Your task to perform on an android device: check android version Image 0: 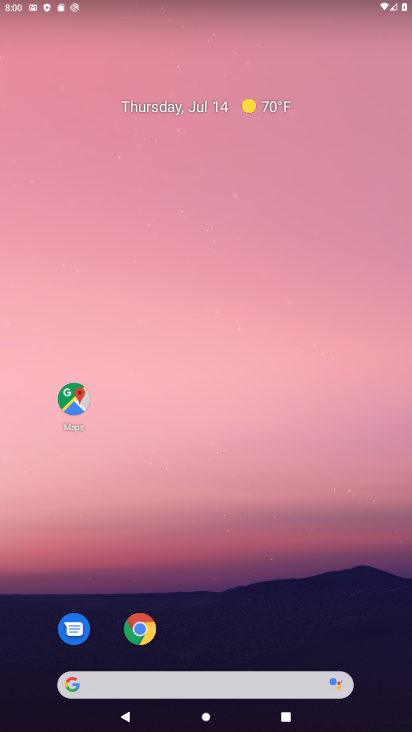
Step 0: drag from (284, 463) to (265, 75)
Your task to perform on an android device: check android version Image 1: 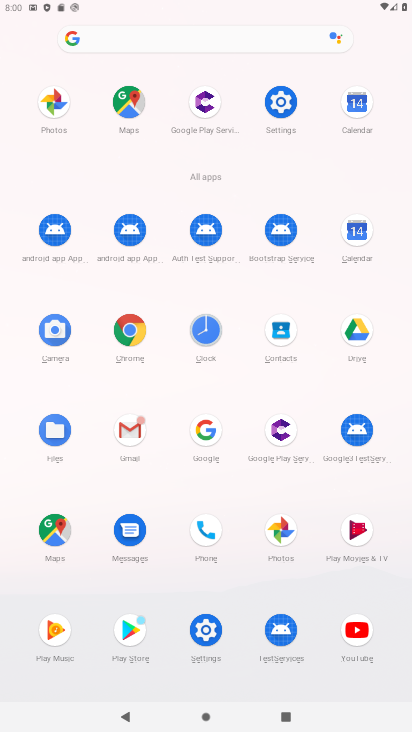
Step 1: click (283, 109)
Your task to perform on an android device: check android version Image 2: 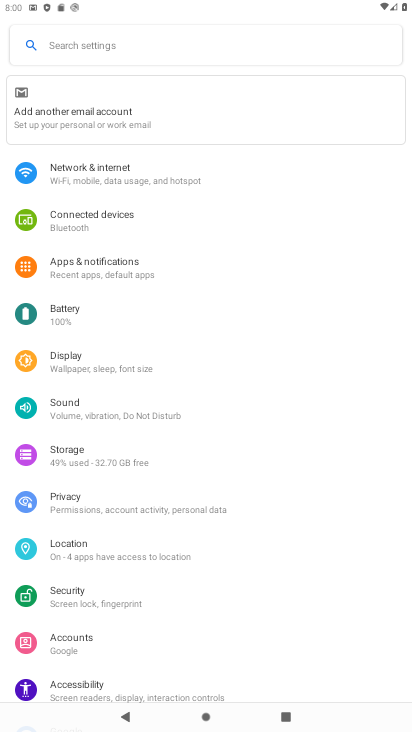
Step 2: drag from (106, 680) to (78, 237)
Your task to perform on an android device: check android version Image 3: 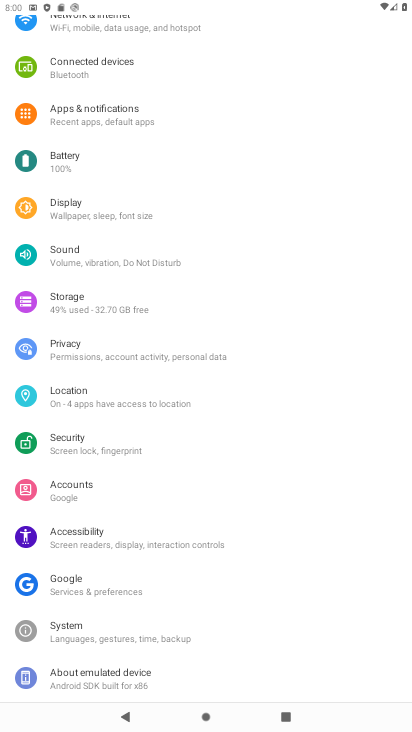
Step 3: click (82, 692)
Your task to perform on an android device: check android version Image 4: 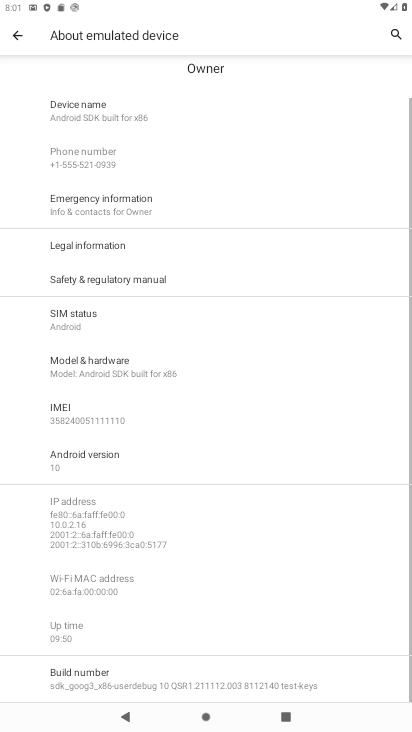
Step 4: click (111, 458)
Your task to perform on an android device: check android version Image 5: 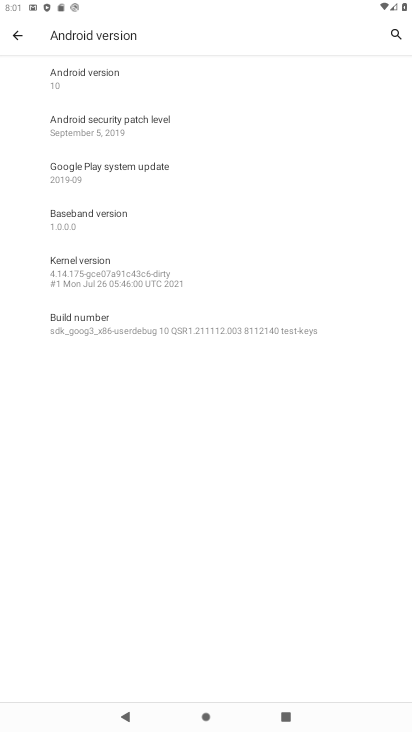
Step 5: task complete